Your task to perform on an android device: Go to settings Image 0: 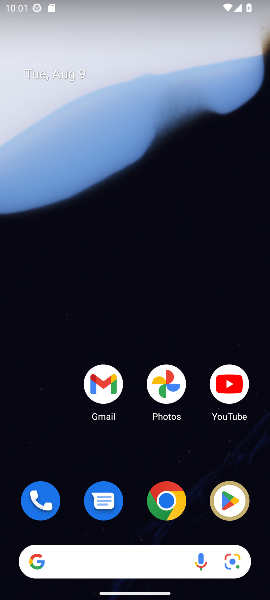
Step 0: click (134, 519)
Your task to perform on an android device: Go to settings Image 1: 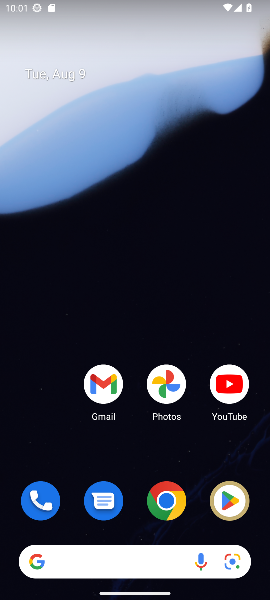
Step 1: drag from (121, 279) to (121, 174)
Your task to perform on an android device: Go to settings Image 2: 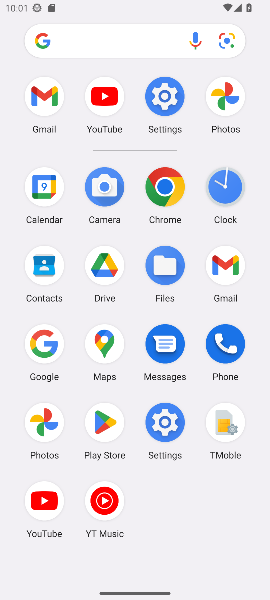
Step 2: click (160, 100)
Your task to perform on an android device: Go to settings Image 3: 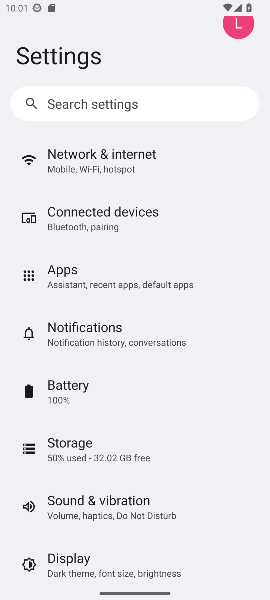
Step 3: task complete